Your task to perform on an android device: Do I have any events tomorrow? Image 0: 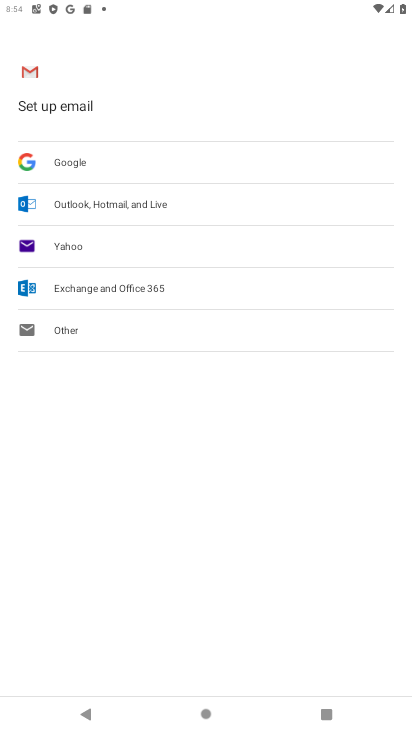
Step 0: press home button
Your task to perform on an android device: Do I have any events tomorrow? Image 1: 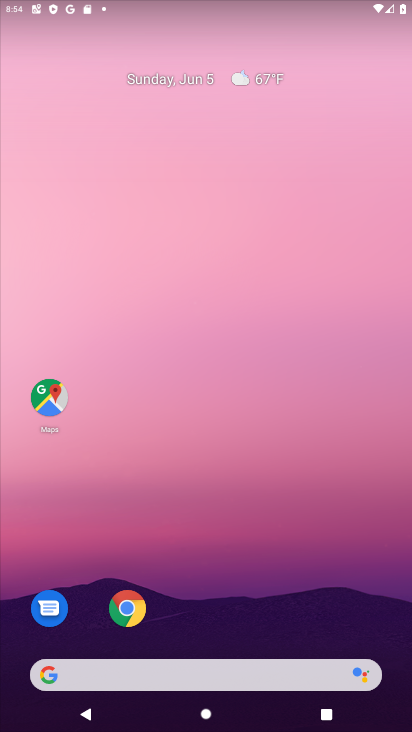
Step 1: drag from (18, 561) to (239, 126)
Your task to perform on an android device: Do I have any events tomorrow? Image 2: 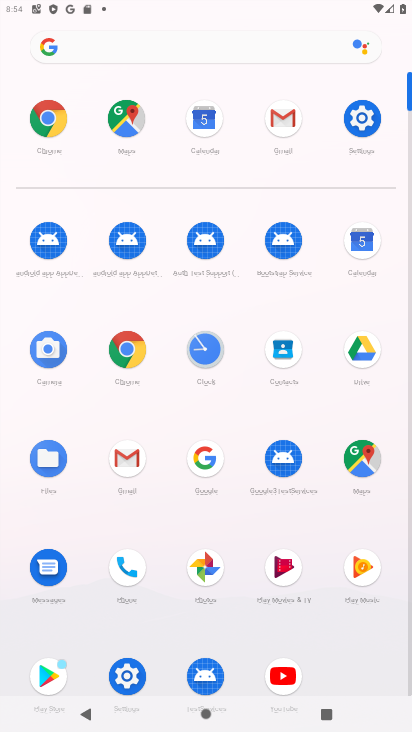
Step 2: click (360, 245)
Your task to perform on an android device: Do I have any events tomorrow? Image 3: 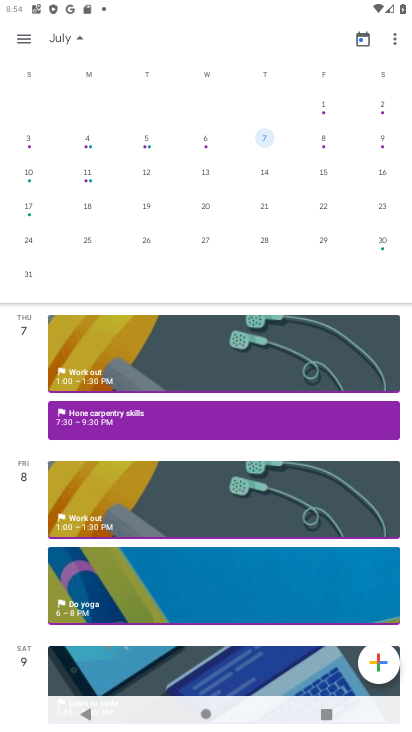
Step 3: drag from (40, 224) to (384, 311)
Your task to perform on an android device: Do I have any events tomorrow? Image 4: 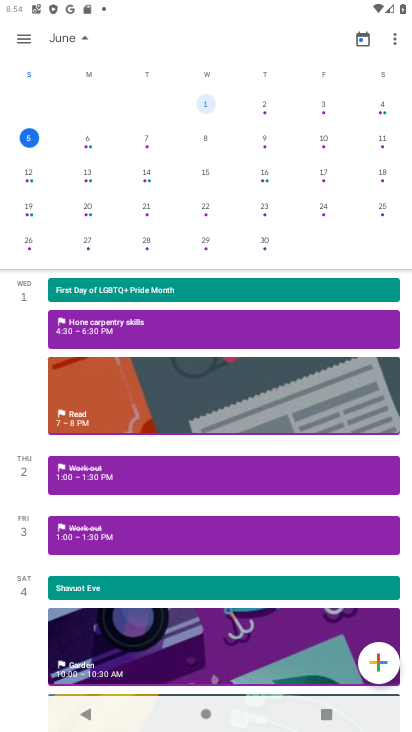
Step 4: click (204, 103)
Your task to perform on an android device: Do I have any events tomorrow? Image 5: 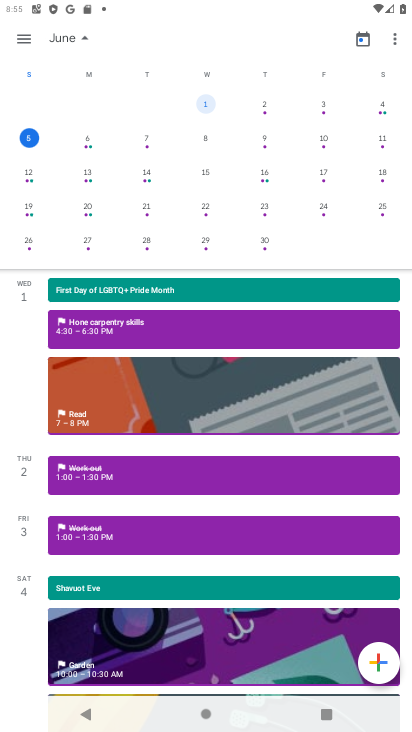
Step 5: task complete